Your task to perform on an android device: uninstall "The Home Depot" Image 0: 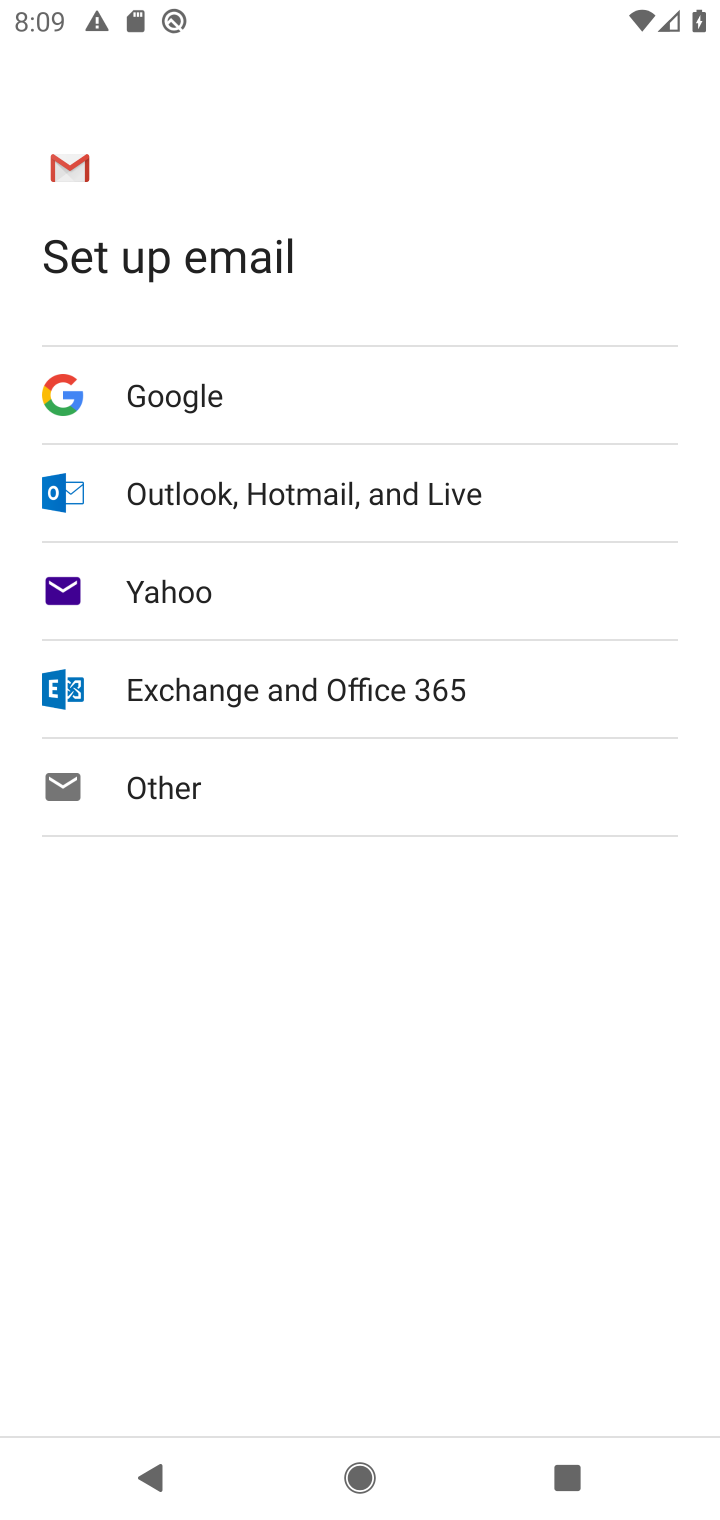
Step 0: press home button
Your task to perform on an android device: uninstall "The Home Depot" Image 1: 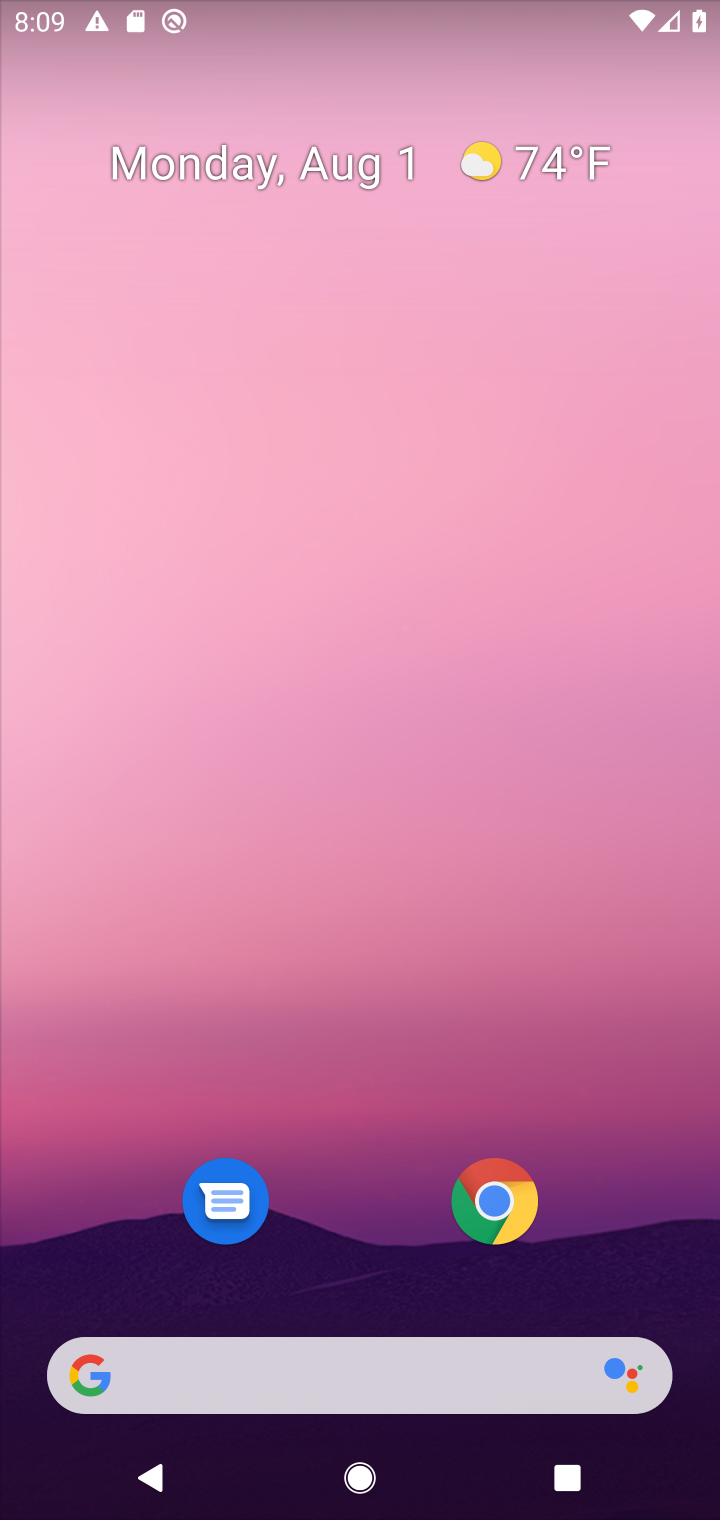
Step 1: drag from (648, 1185) to (612, 212)
Your task to perform on an android device: uninstall "The Home Depot" Image 2: 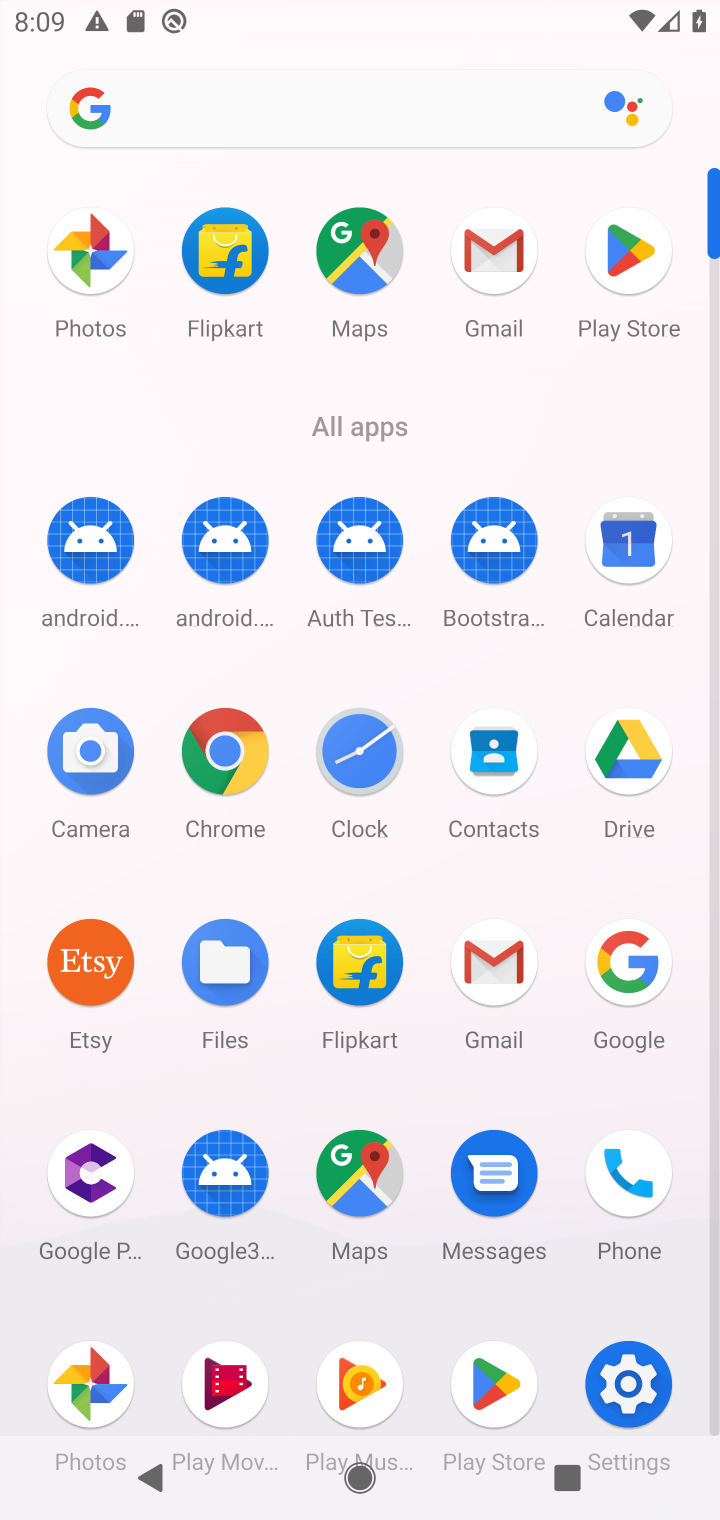
Step 2: click (656, 250)
Your task to perform on an android device: uninstall "The Home Depot" Image 3: 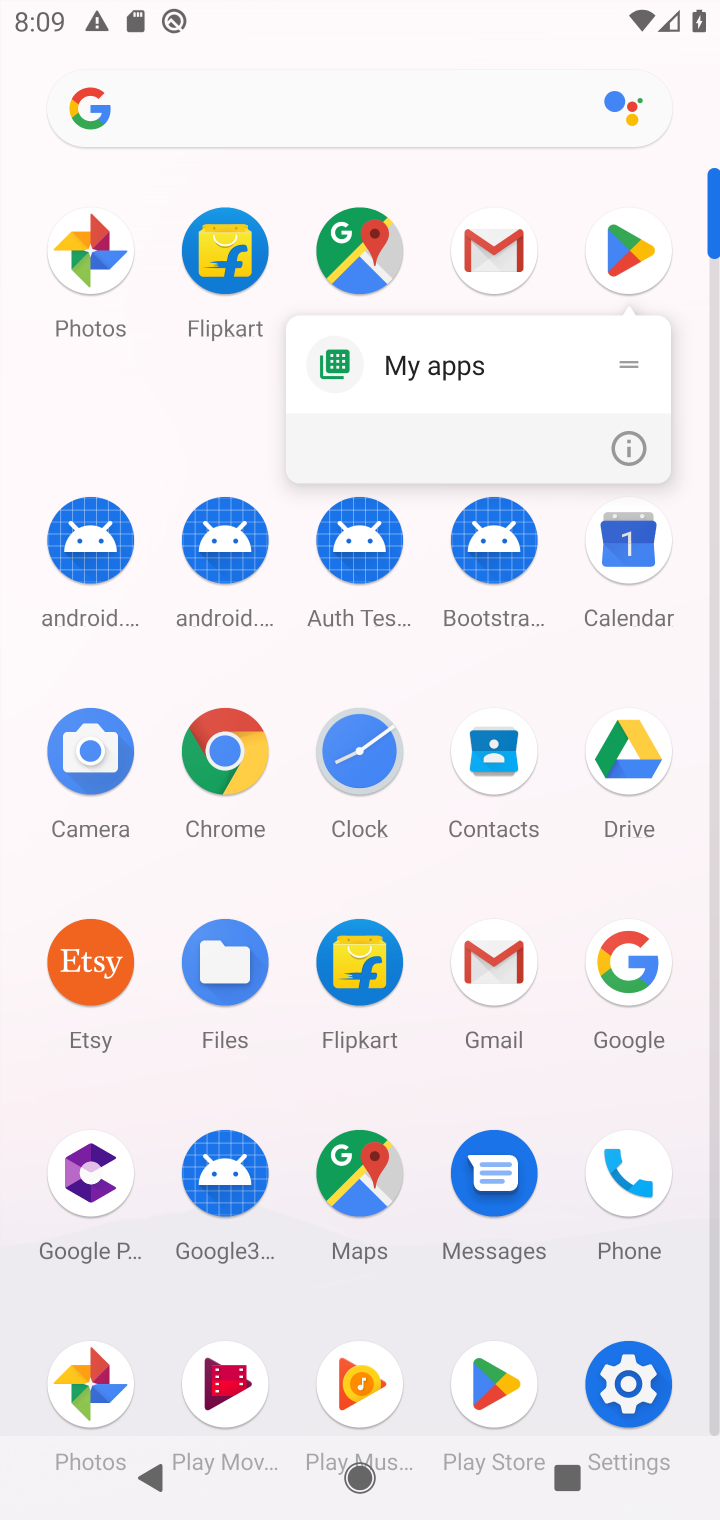
Step 3: click (630, 245)
Your task to perform on an android device: uninstall "The Home Depot" Image 4: 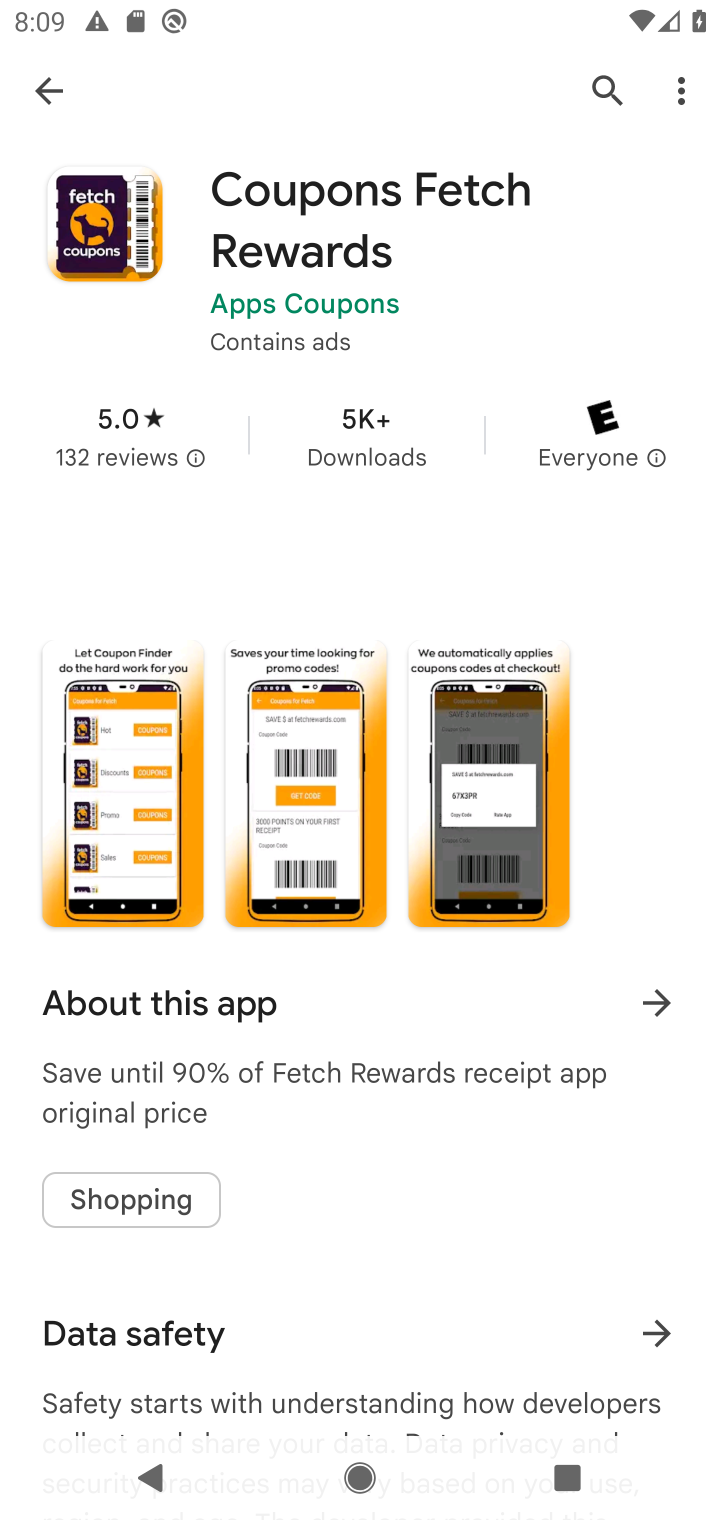
Step 4: press back button
Your task to perform on an android device: uninstall "The Home Depot" Image 5: 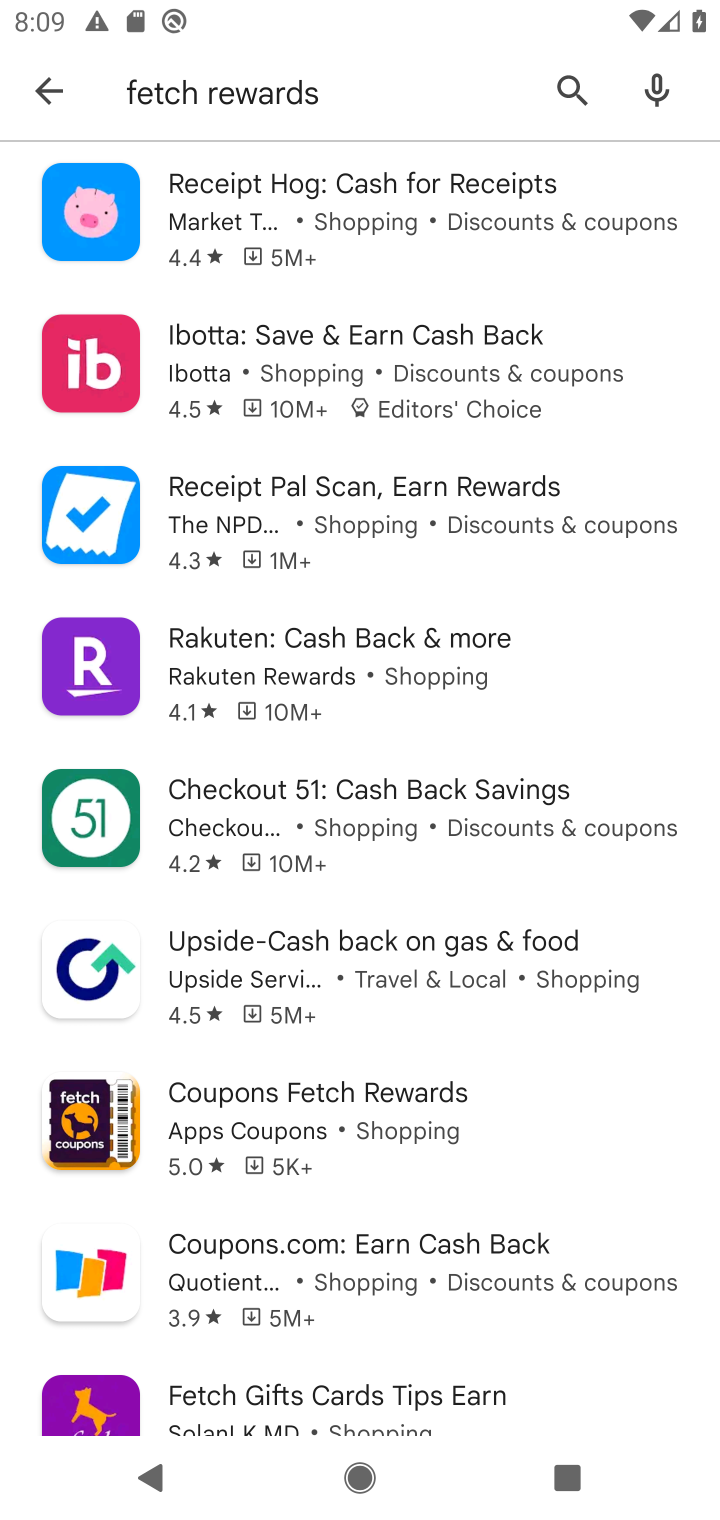
Step 5: press back button
Your task to perform on an android device: uninstall "The Home Depot" Image 6: 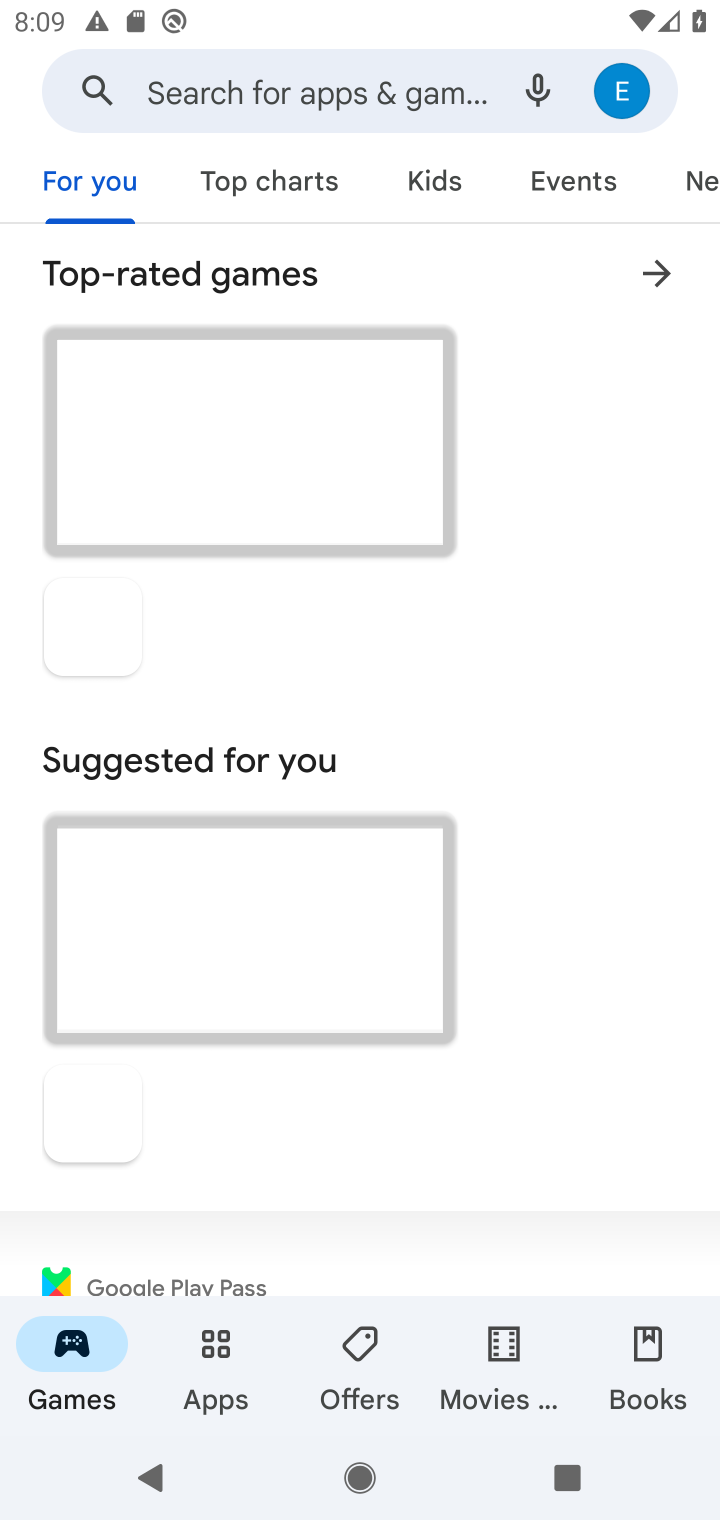
Step 6: click (418, 94)
Your task to perform on an android device: uninstall "The Home Depot" Image 7: 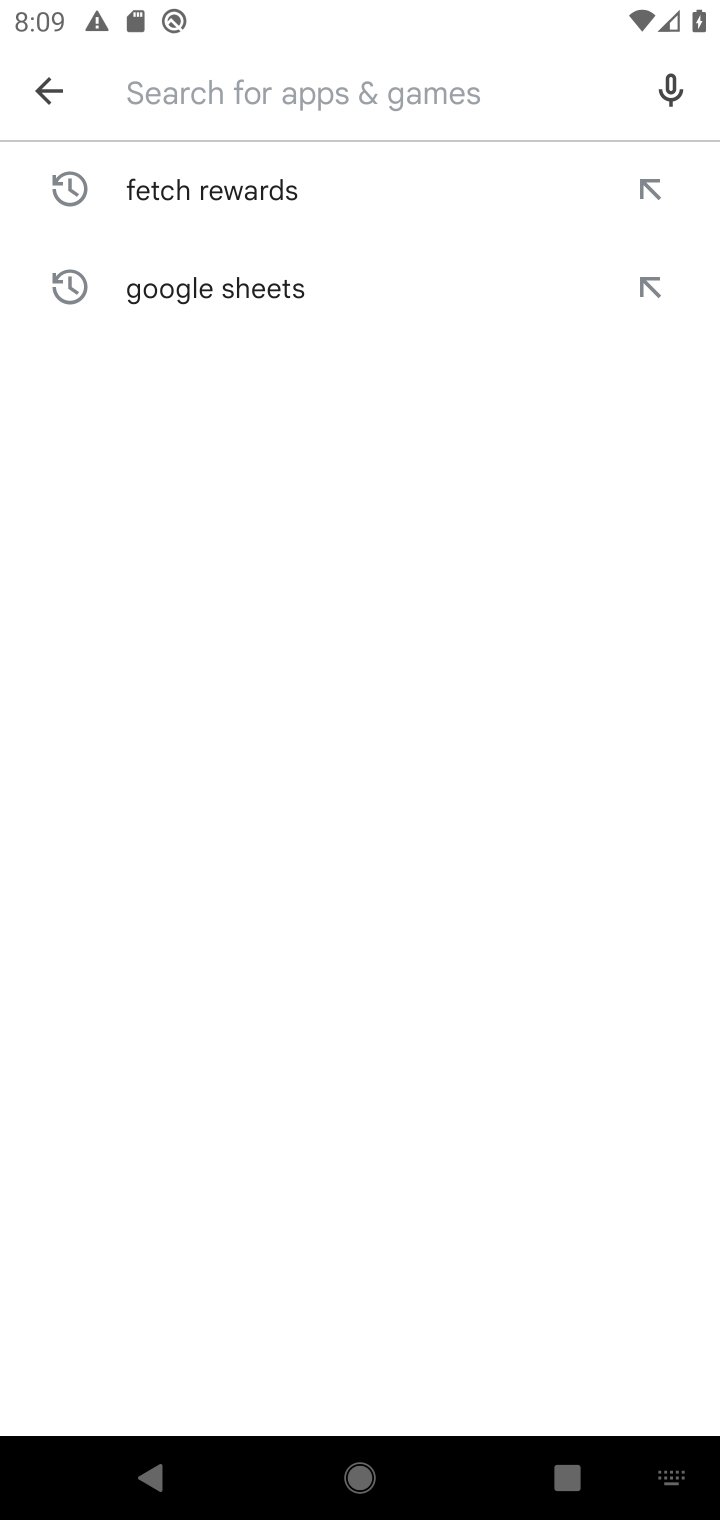
Step 7: type "The Home Depot"
Your task to perform on an android device: uninstall "The Home Depot" Image 8: 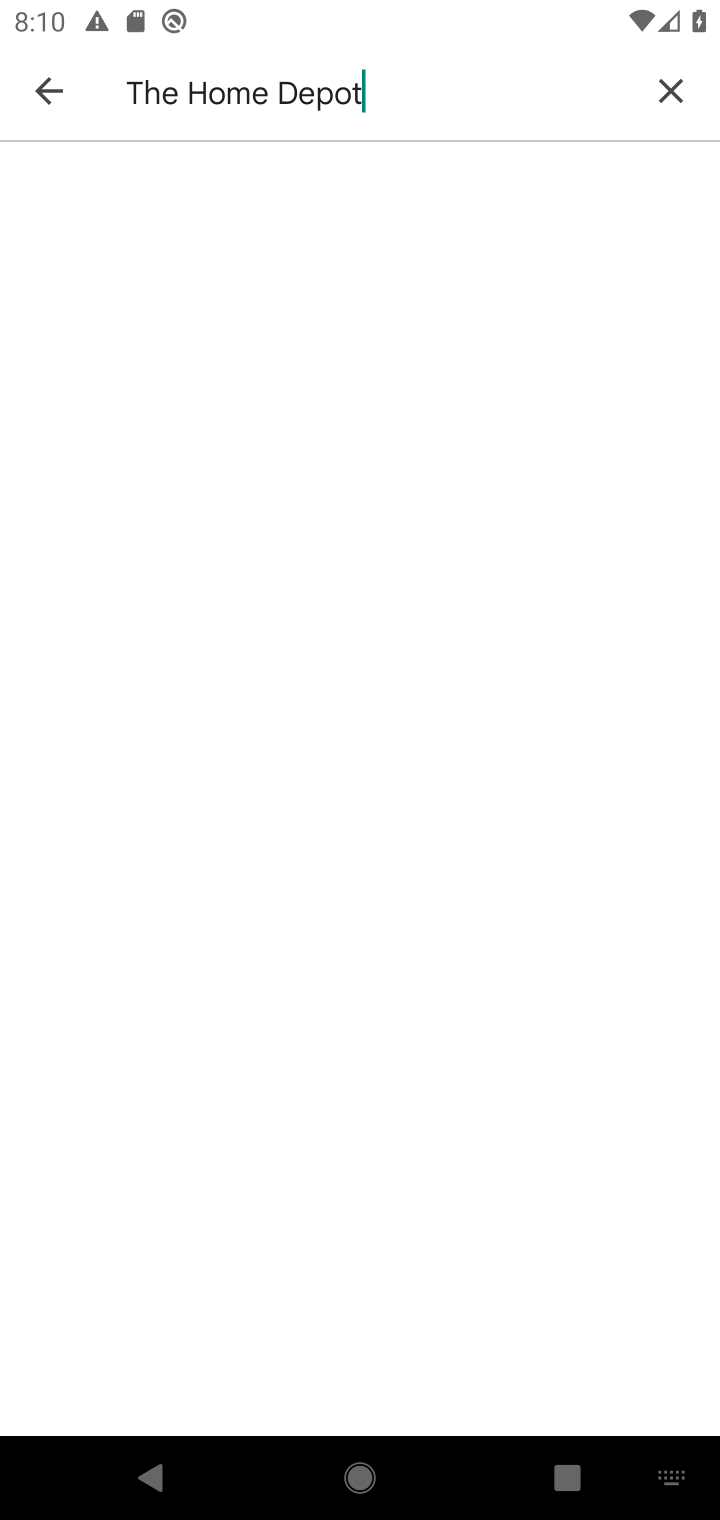
Step 8: click (677, 85)
Your task to perform on an android device: uninstall "The Home Depot" Image 9: 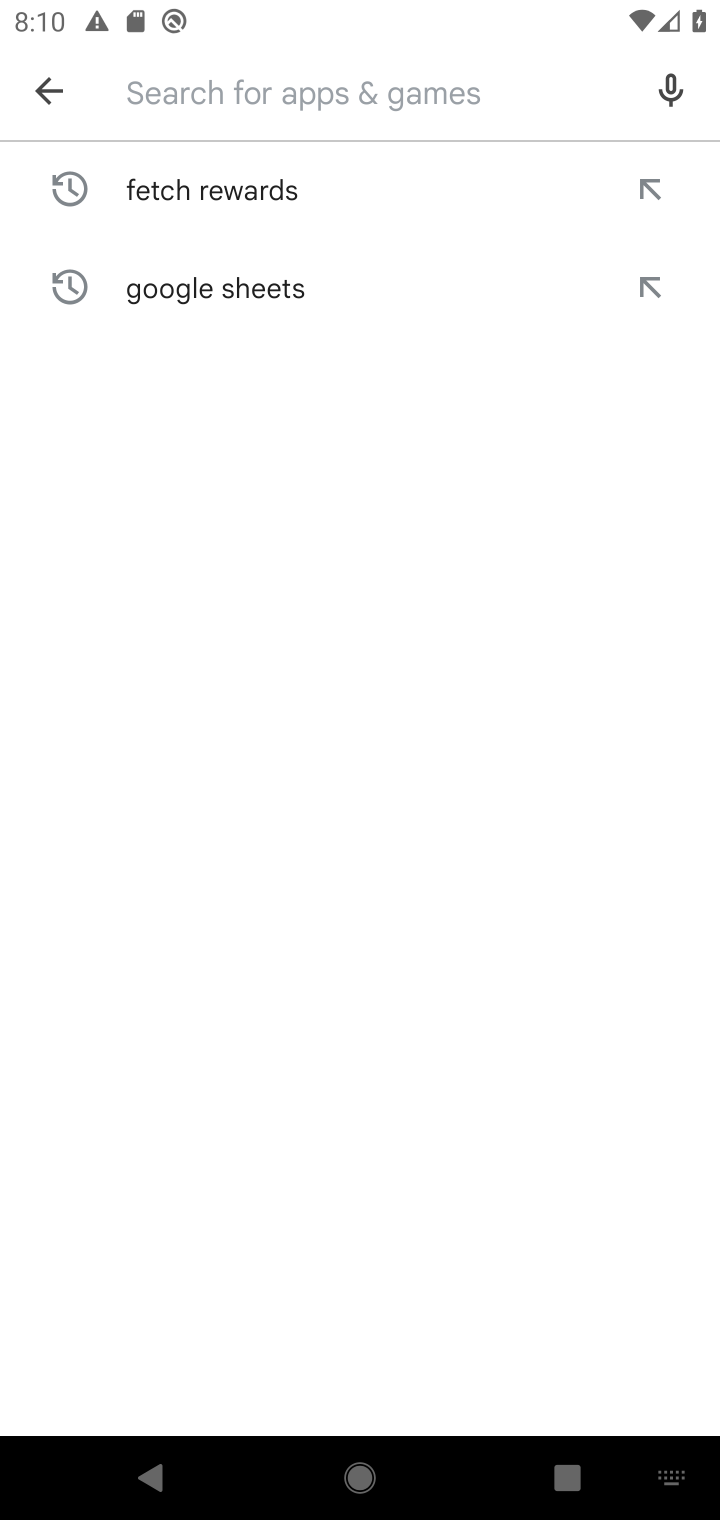
Step 9: type "The Home Depot"
Your task to perform on an android device: uninstall "The Home Depot" Image 10: 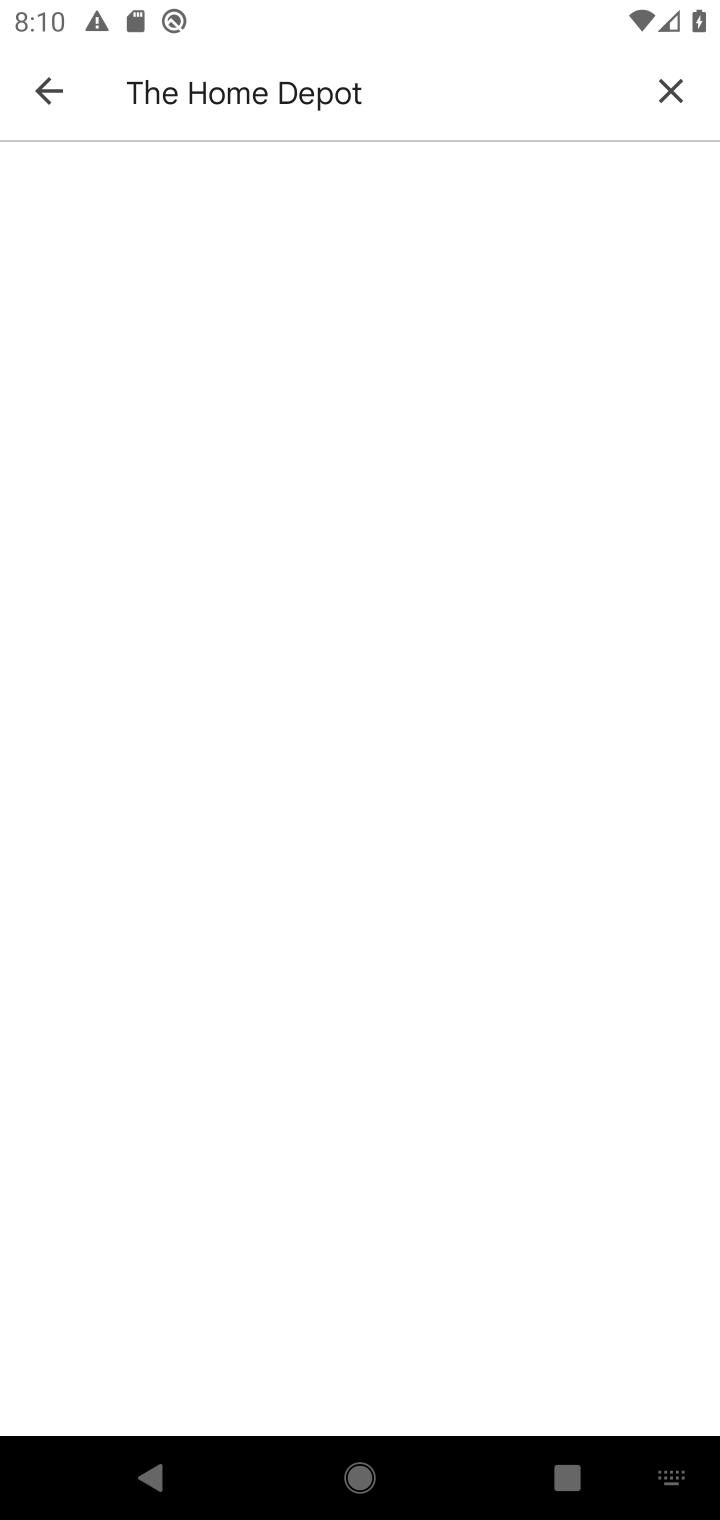
Step 10: task complete